Your task to perform on an android device: Go to settings Image 0: 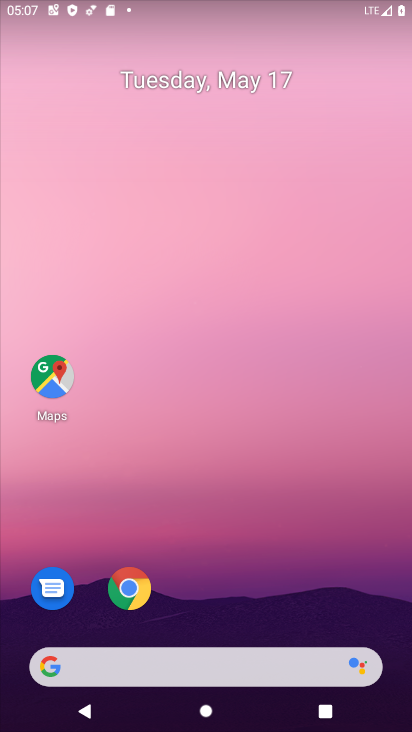
Step 0: drag from (246, 563) to (240, 36)
Your task to perform on an android device: Go to settings Image 1: 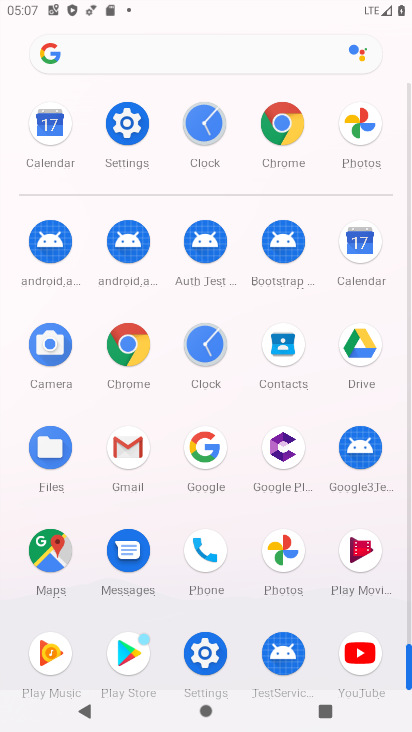
Step 1: click (129, 123)
Your task to perform on an android device: Go to settings Image 2: 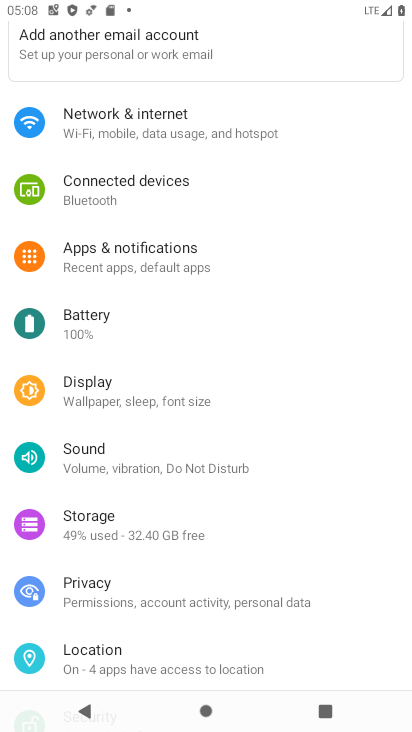
Step 2: task complete